Your task to perform on an android device: change the upload size in google photos Image 0: 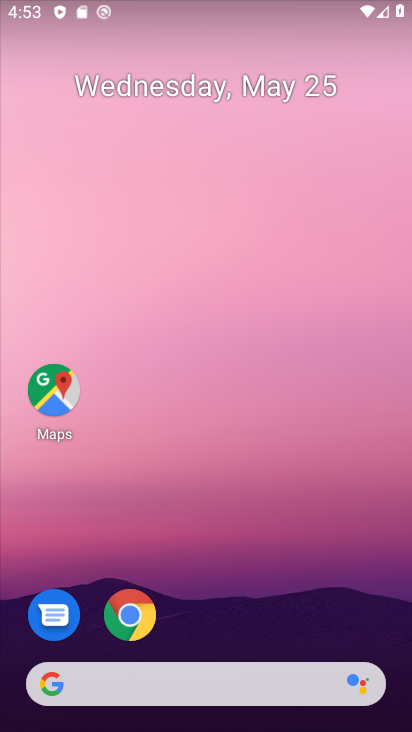
Step 0: drag from (288, 619) to (273, 107)
Your task to perform on an android device: change the upload size in google photos Image 1: 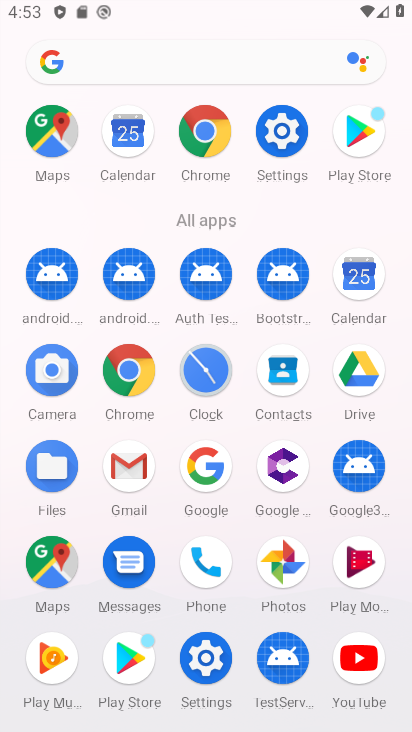
Step 1: click (273, 570)
Your task to perform on an android device: change the upload size in google photos Image 2: 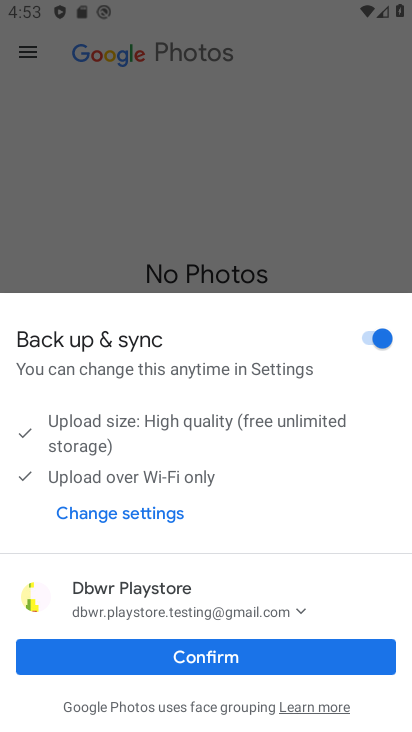
Step 2: click (233, 652)
Your task to perform on an android device: change the upload size in google photos Image 3: 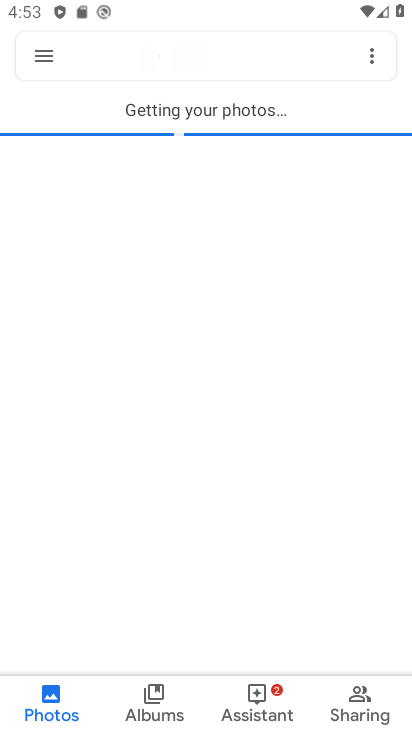
Step 3: click (43, 54)
Your task to perform on an android device: change the upload size in google photos Image 4: 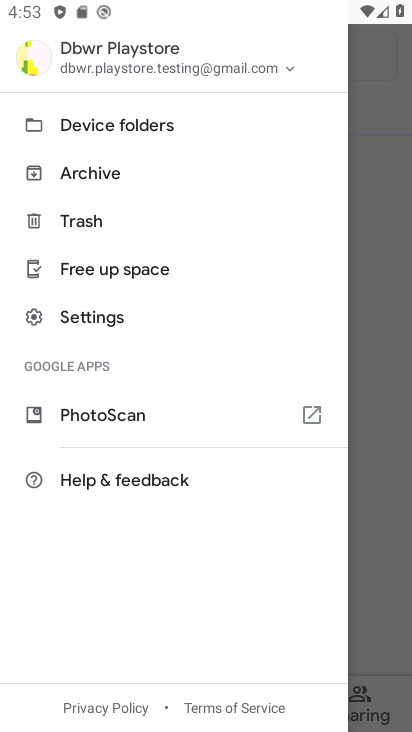
Step 4: click (87, 318)
Your task to perform on an android device: change the upload size in google photos Image 5: 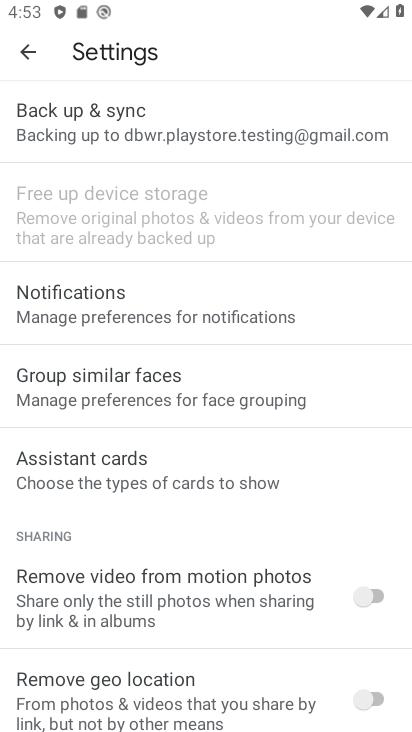
Step 5: click (101, 127)
Your task to perform on an android device: change the upload size in google photos Image 6: 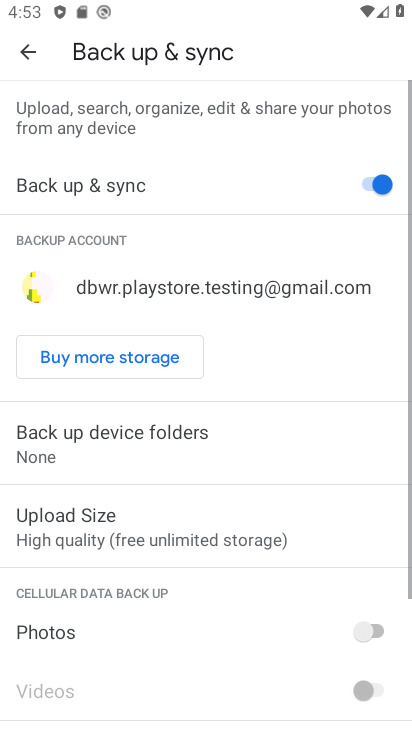
Step 6: click (188, 548)
Your task to perform on an android device: change the upload size in google photos Image 7: 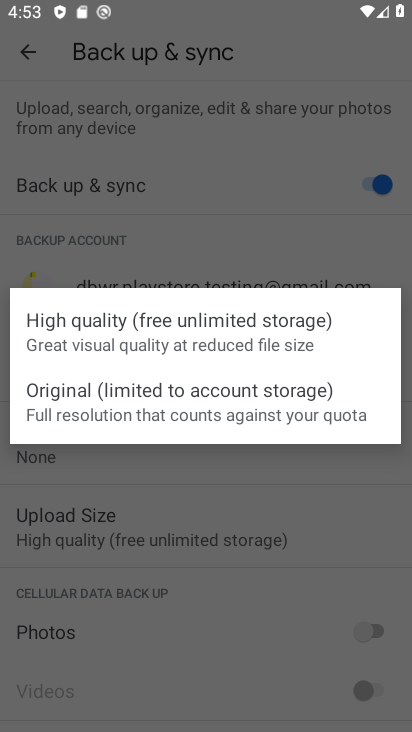
Step 7: click (170, 388)
Your task to perform on an android device: change the upload size in google photos Image 8: 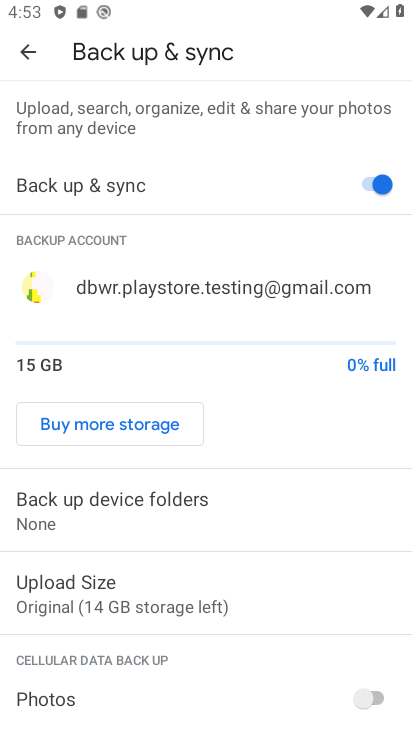
Step 8: task complete